Your task to perform on an android device: Open the stopwatch Image 0: 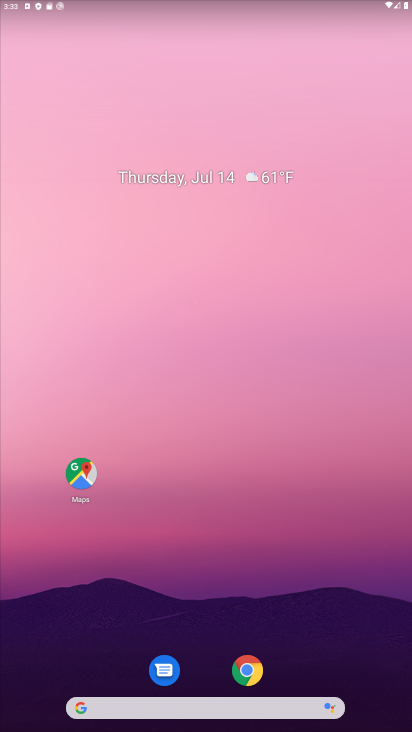
Step 0: drag from (202, 665) to (156, 120)
Your task to perform on an android device: Open the stopwatch Image 1: 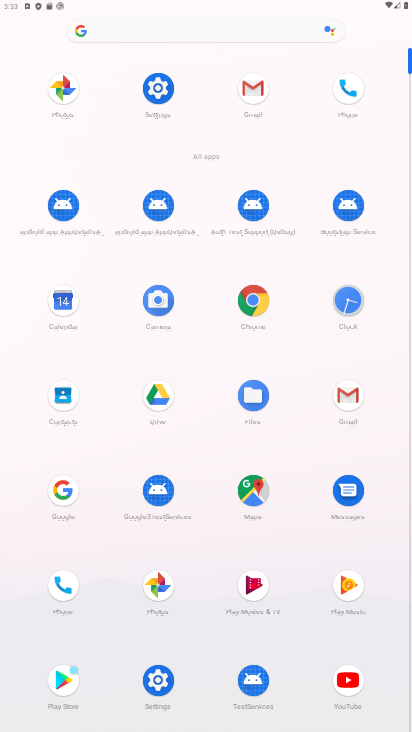
Step 1: click (355, 312)
Your task to perform on an android device: Open the stopwatch Image 2: 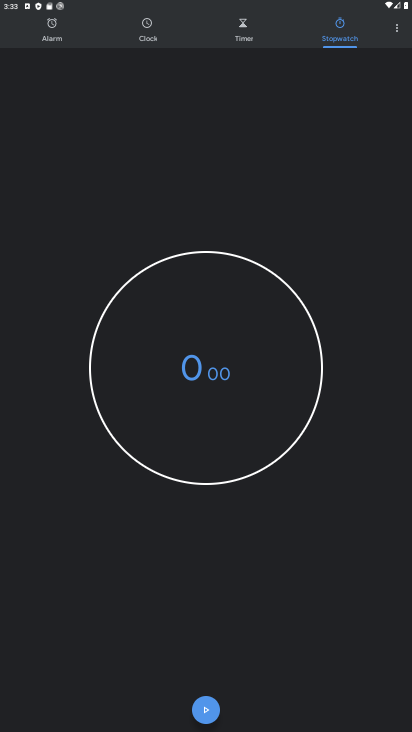
Step 2: task complete